Your task to perform on an android device: turn off picture-in-picture Image 0: 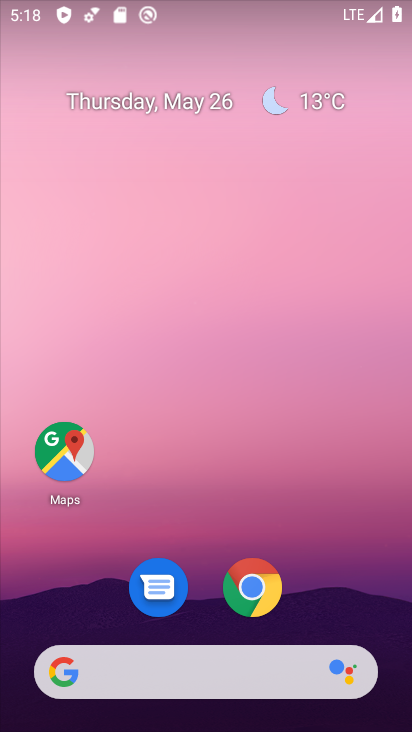
Step 0: drag from (232, 726) to (197, 89)
Your task to perform on an android device: turn off picture-in-picture Image 1: 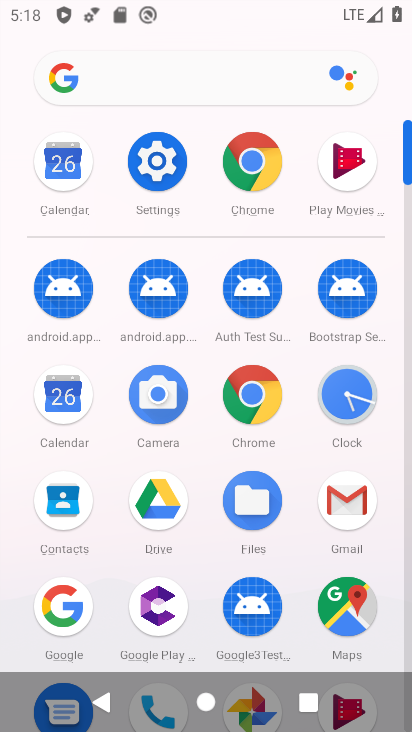
Step 1: click (156, 158)
Your task to perform on an android device: turn off picture-in-picture Image 2: 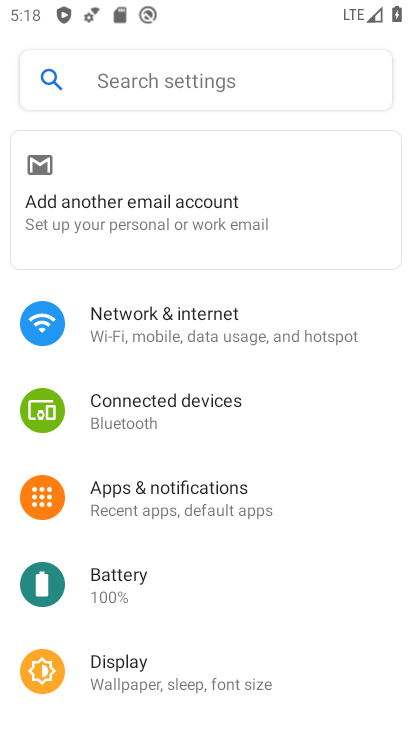
Step 2: drag from (178, 703) to (180, 379)
Your task to perform on an android device: turn off picture-in-picture Image 3: 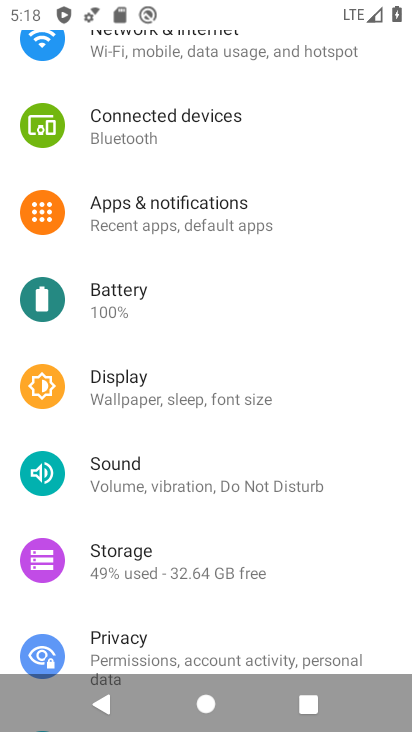
Step 3: click (180, 206)
Your task to perform on an android device: turn off picture-in-picture Image 4: 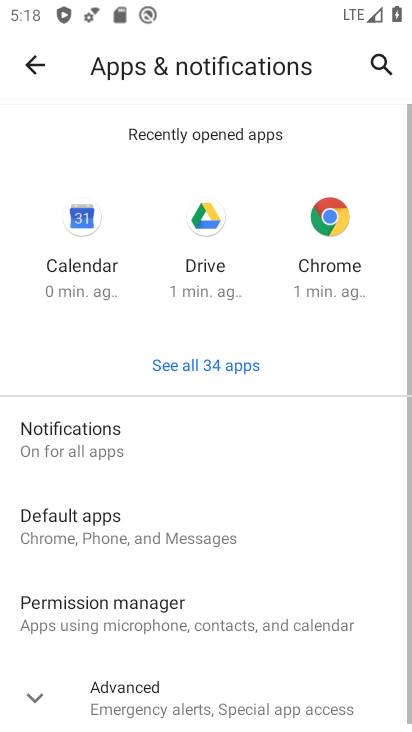
Step 4: drag from (175, 696) to (181, 372)
Your task to perform on an android device: turn off picture-in-picture Image 5: 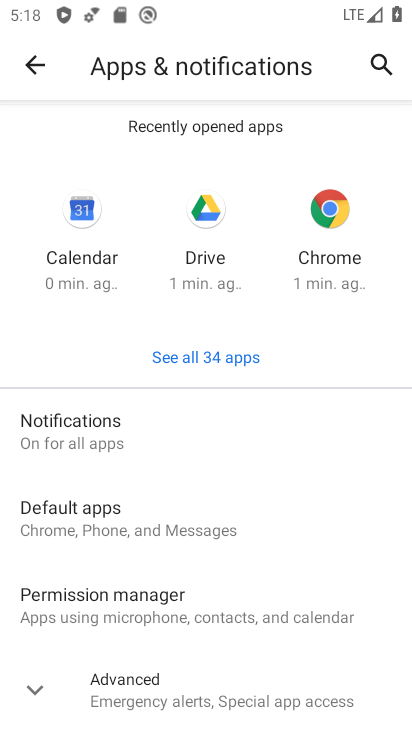
Step 5: click (162, 682)
Your task to perform on an android device: turn off picture-in-picture Image 6: 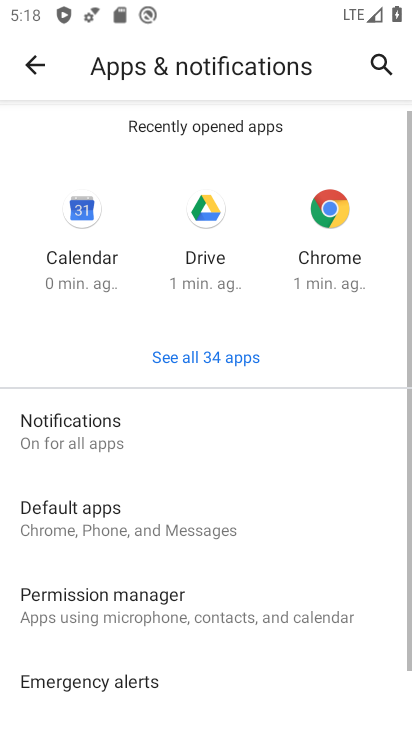
Step 6: drag from (189, 703) to (194, 366)
Your task to perform on an android device: turn off picture-in-picture Image 7: 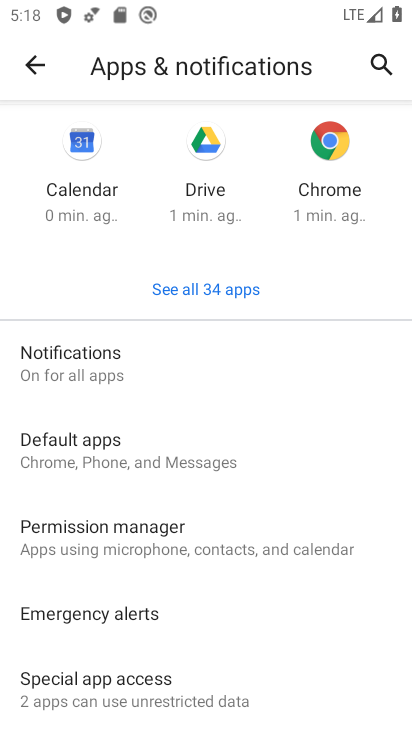
Step 7: click (141, 689)
Your task to perform on an android device: turn off picture-in-picture Image 8: 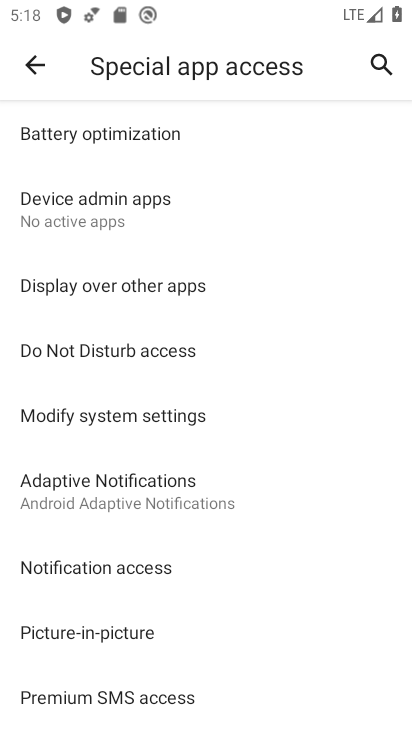
Step 8: drag from (218, 687) to (218, 434)
Your task to perform on an android device: turn off picture-in-picture Image 9: 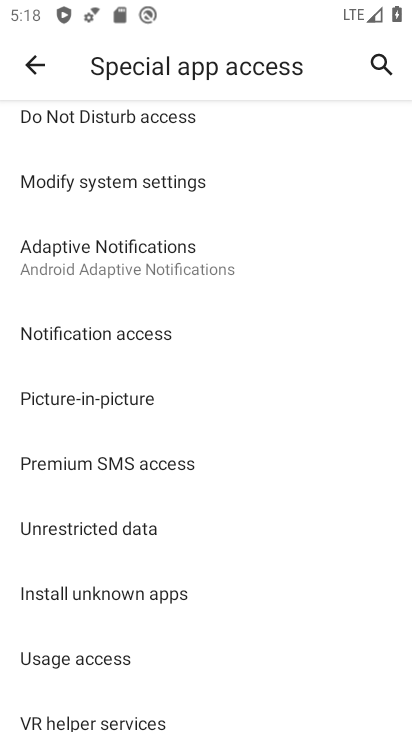
Step 9: click (111, 396)
Your task to perform on an android device: turn off picture-in-picture Image 10: 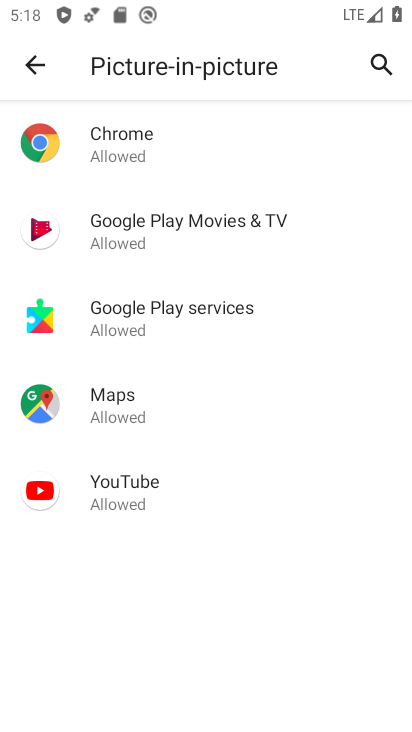
Step 10: click (141, 483)
Your task to perform on an android device: turn off picture-in-picture Image 11: 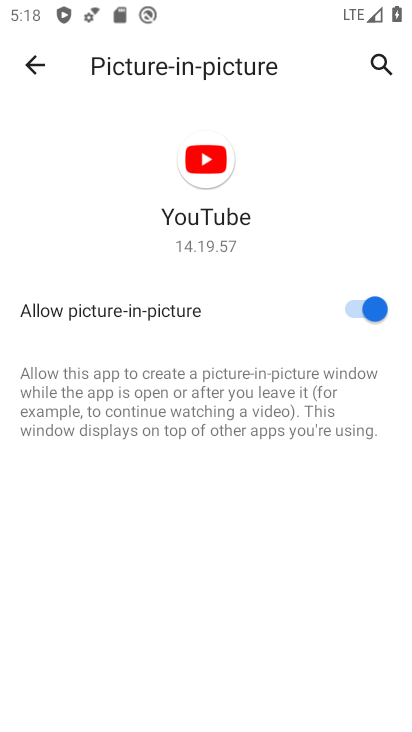
Step 11: click (348, 301)
Your task to perform on an android device: turn off picture-in-picture Image 12: 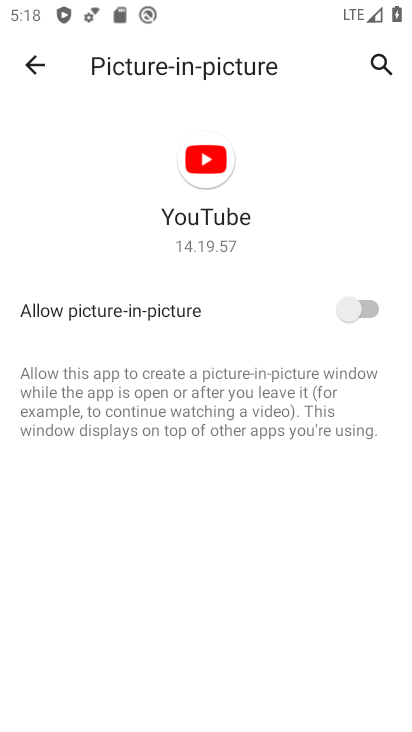
Step 12: task complete